Your task to perform on an android device: What's the weather going to be tomorrow? Image 0: 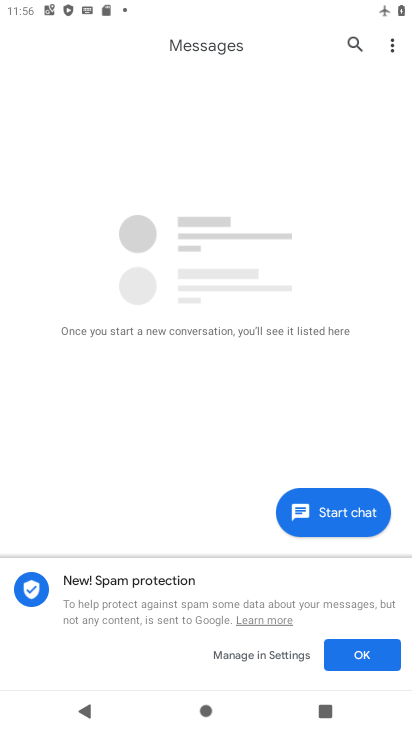
Step 0: press home button
Your task to perform on an android device: What's the weather going to be tomorrow? Image 1: 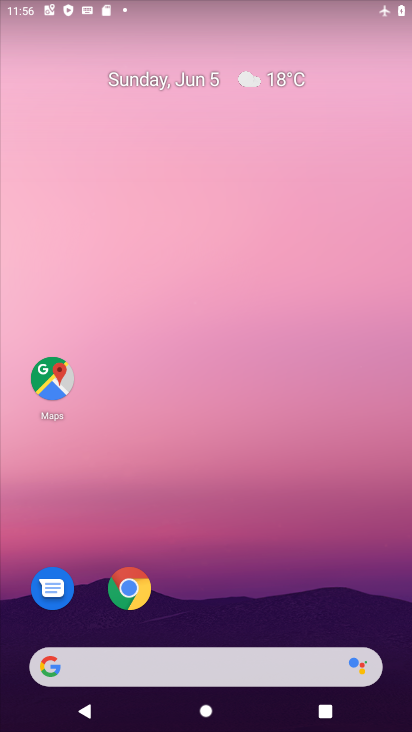
Step 1: click (154, 666)
Your task to perform on an android device: What's the weather going to be tomorrow? Image 2: 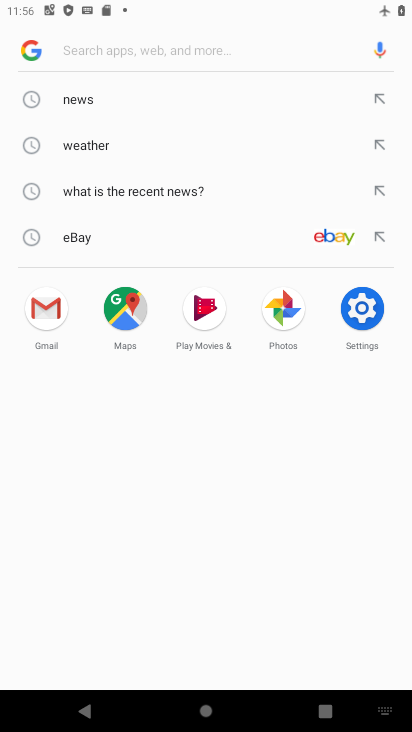
Step 2: type "What's the weather going to be tomorrow?"
Your task to perform on an android device: What's the weather going to be tomorrow? Image 3: 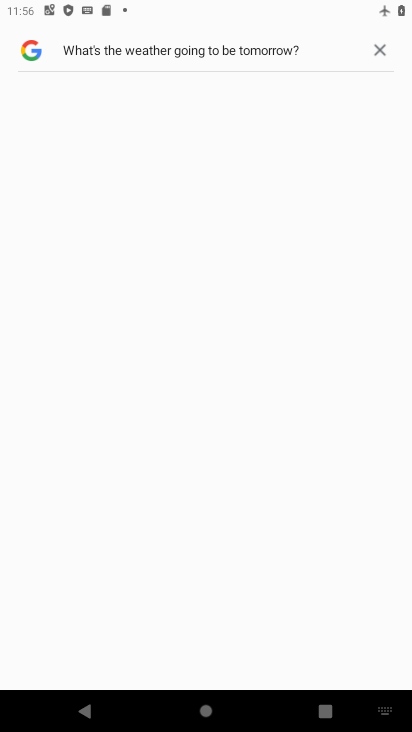
Step 3: press enter
Your task to perform on an android device: What's the weather going to be tomorrow? Image 4: 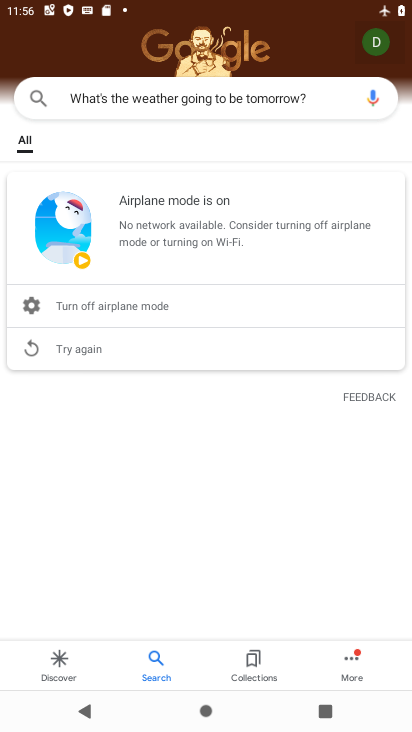
Step 4: task complete